Your task to perform on an android device: check out phone information Image 0: 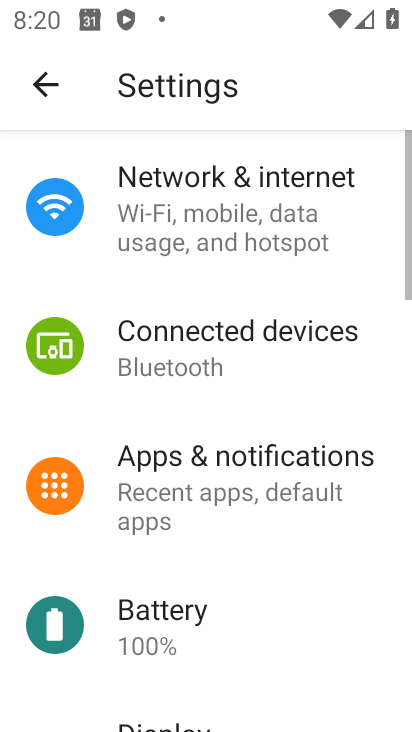
Step 0: drag from (219, 552) to (189, 258)
Your task to perform on an android device: check out phone information Image 1: 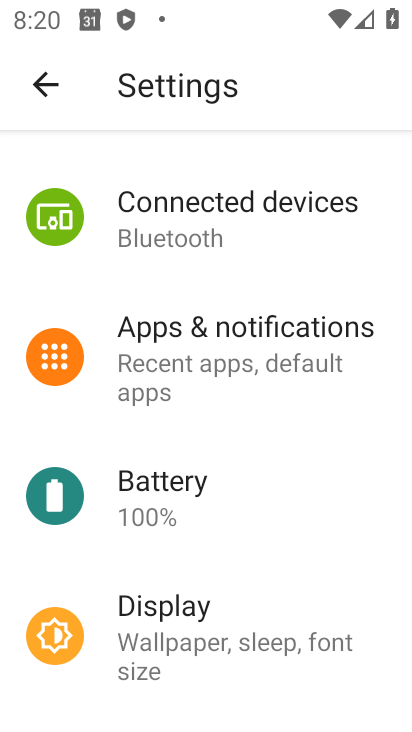
Step 1: drag from (289, 540) to (266, 252)
Your task to perform on an android device: check out phone information Image 2: 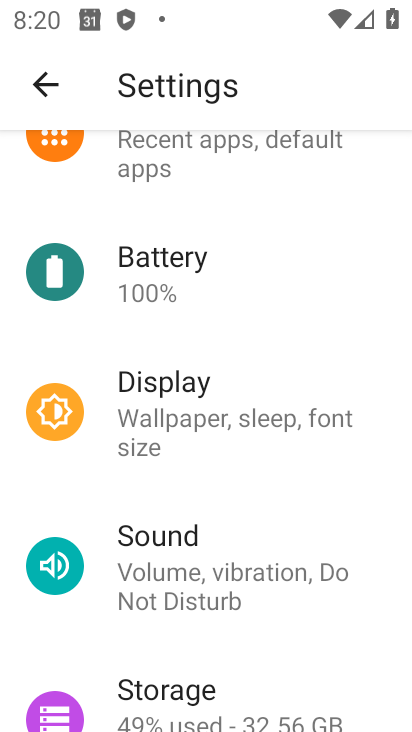
Step 2: drag from (245, 629) to (205, 262)
Your task to perform on an android device: check out phone information Image 3: 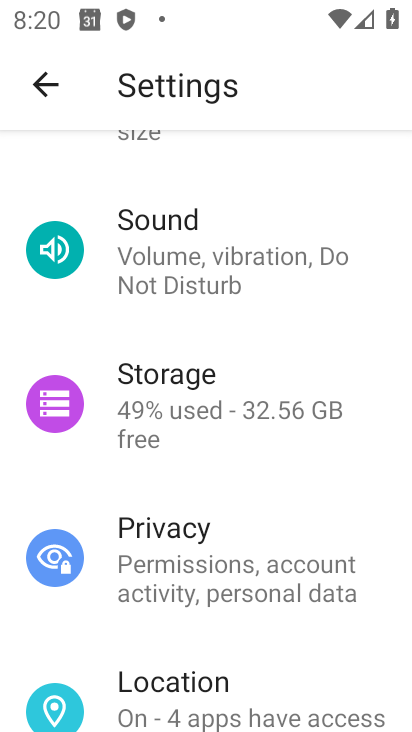
Step 3: drag from (193, 629) to (136, 237)
Your task to perform on an android device: check out phone information Image 4: 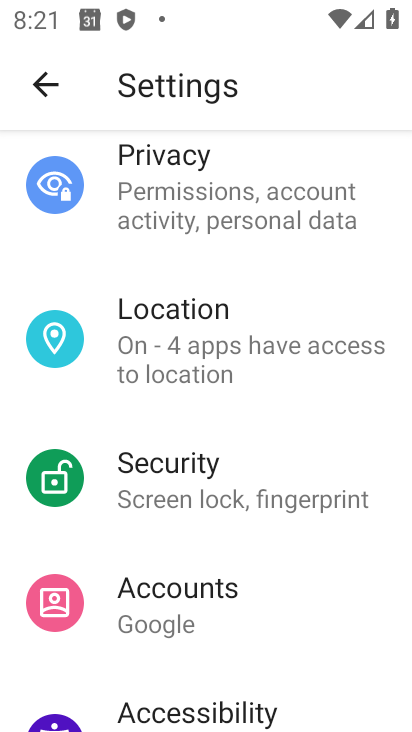
Step 4: drag from (204, 672) to (181, 376)
Your task to perform on an android device: check out phone information Image 5: 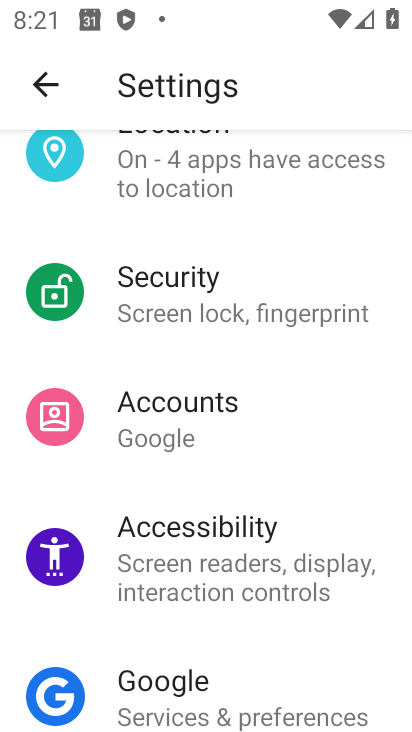
Step 5: drag from (201, 644) to (165, 343)
Your task to perform on an android device: check out phone information Image 6: 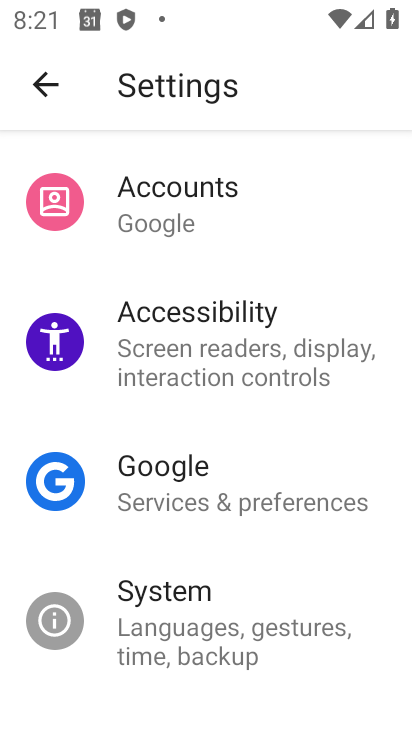
Step 6: drag from (239, 568) to (204, 225)
Your task to perform on an android device: check out phone information Image 7: 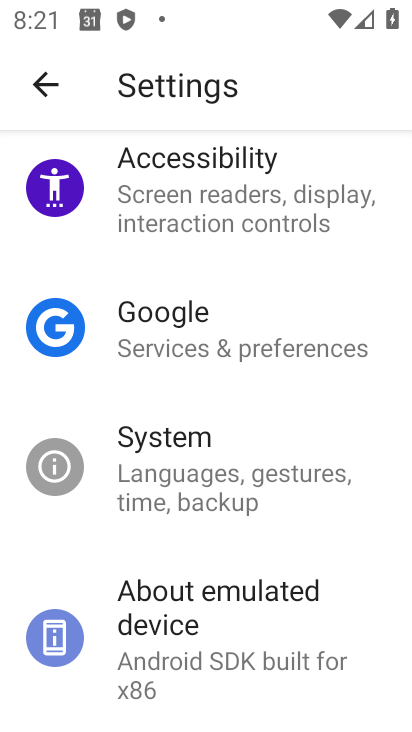
Step 7: click (150, 610)
Your task to perform on an android device: check out phone information Image 8: 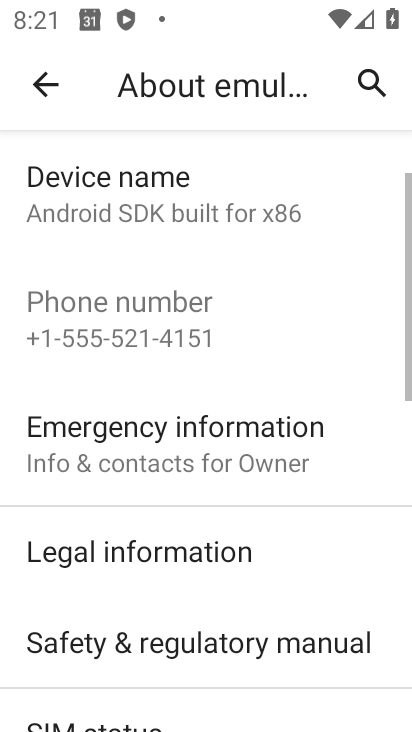
Step 8: task complete